Your task to perform on an android device: turn on priority inbox in the gmail app Image 0: 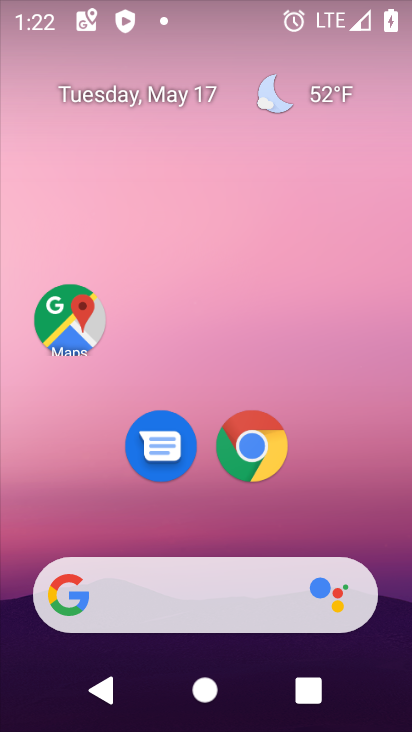
Step 0: drag from (207, 514) to (269, 100)
Your task to perform on an android device: turn on priority inbox in the gmail app Image 1: 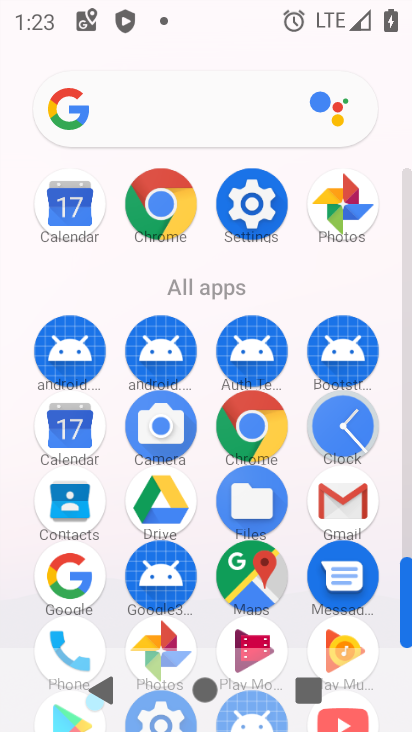
Step 1: click (353, 509)
Your task to perform on an android device: turn on priority inbox in the gmail app Image 2: 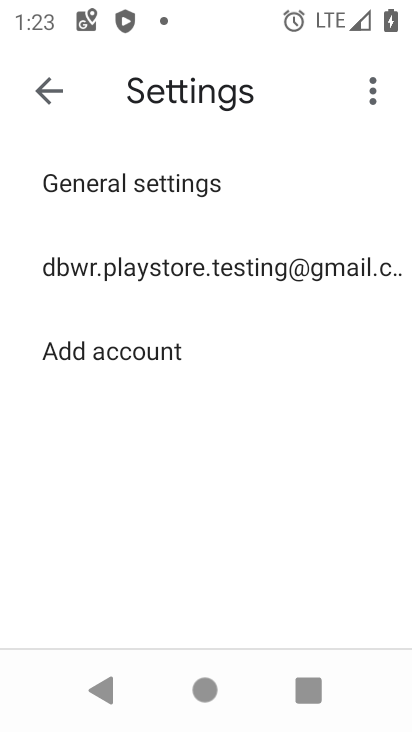
Step 2: click (214, 279)
Your task to perform on an android device: turn on priority inbox in the gmail app Image 3: 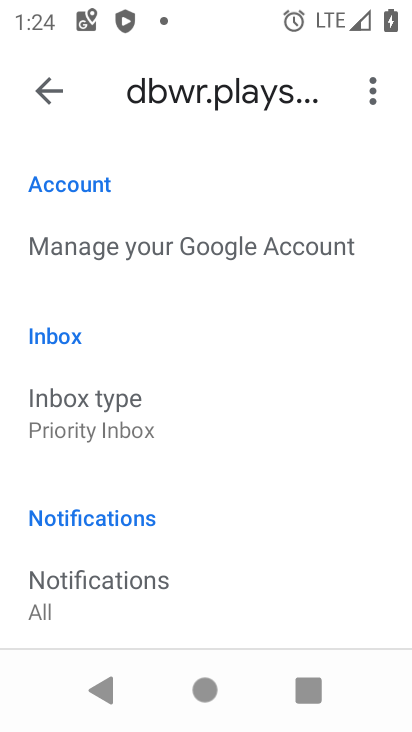
Step 3: click (157, 427)
Your task to perform on an android device: turn on priority inbox in the gmail app Image 4: 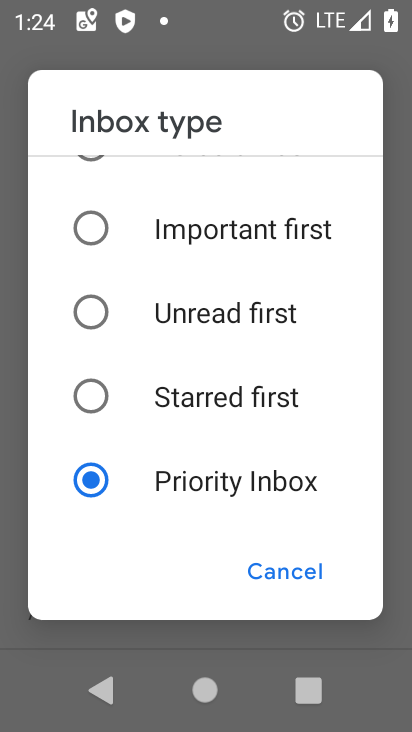
Step 4: task complete